Your task to perform on an android device: turn off smart reply in the gmail app Image 0: 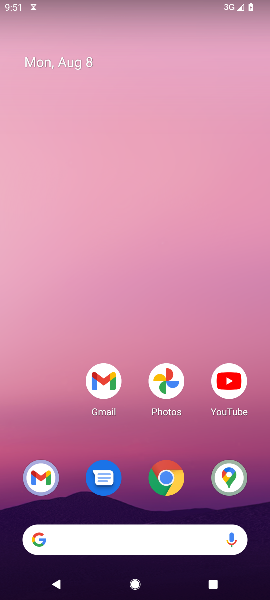
Step 0: click (107, 381)
Your task to perform on an android device: turn off smart reply in the gmail app Image 1: 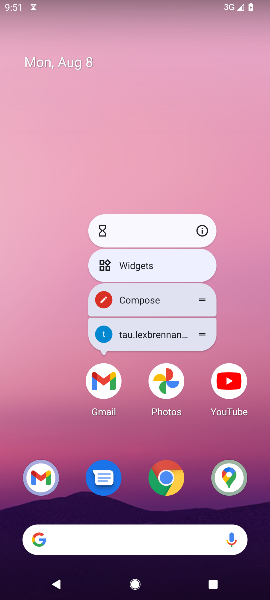
Step 1: click (104, 388)
Your task to perform on an android device: turn off smart reply in the gmail app Image 2: 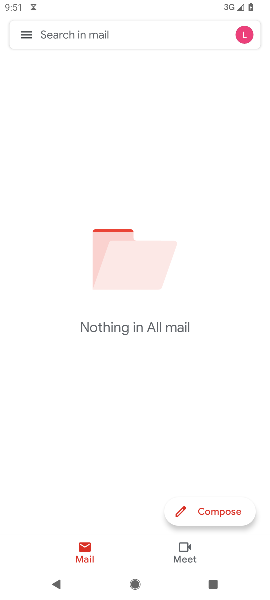
Step 2: click (30, 31)
Your task to perform on an android device: turn off smart reply in the gmail app Image 3: 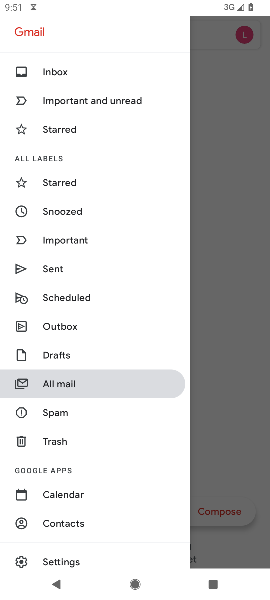
Step 3: drag from (99, 495) to (162, 188)
Your task to perform on an android device: turn off smart reply in the gmail app Image 4: 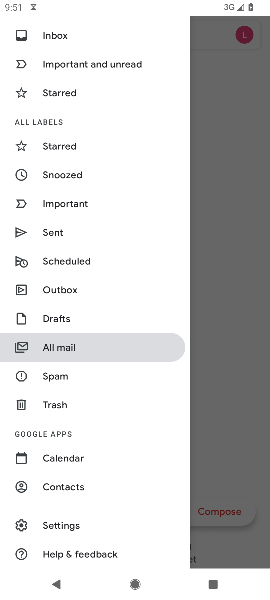
Step 4: click (52, 526)
Your task to perform on an android device: turn off smart reply in the gmail app Image 5: 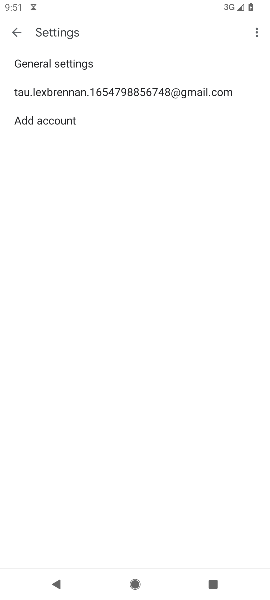
Step 5: click (208, 90)
Your task to perform on an android device: turn off smart reply in the gmail app Image 6: 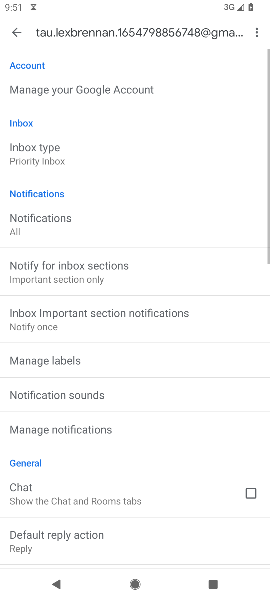
Step 6: drag from (134, 531) to (239, 161)
Your task to perform on an android device: turn off smart reply in the gmail app Image 7: 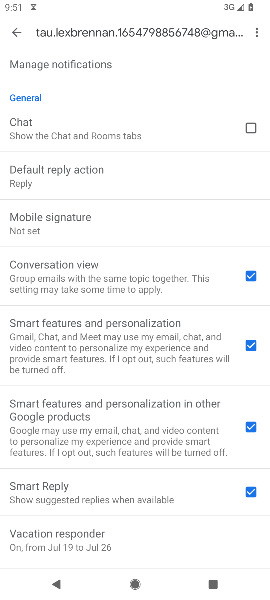
Step 7: drag from (138, 534) to (220, 246)
Your task to perform on an android device: turn off smart reply in the gmail app Image 8: 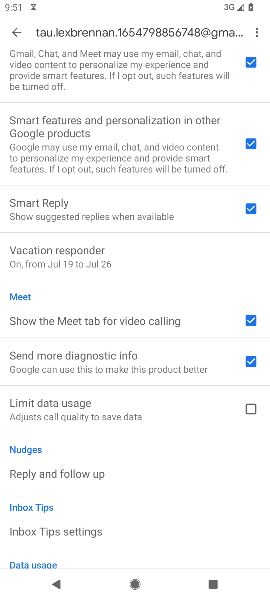
Step 8: click (258, 204)
Your task to perform on an android device: turn off smart reply in the gmail app Image 9: 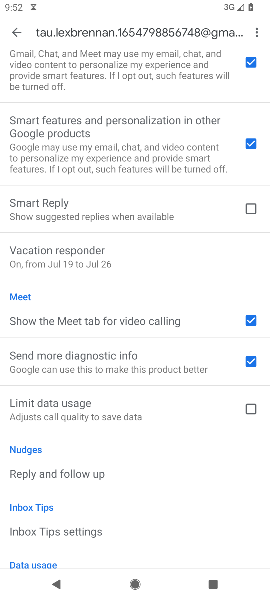
Step 9: task complete